Your task to perform on an android device: Add "razer thresher" to the cart on newegg.com, then select checkout. Image 0: 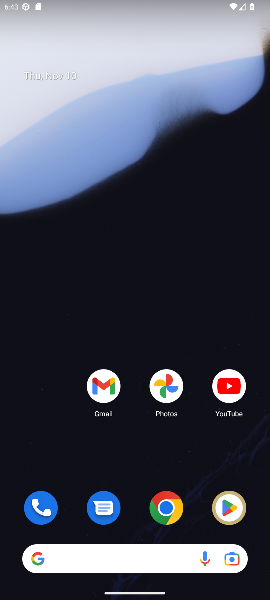
Step 0: click (166, 500)
Your task to perform on an android device: Add "razer thresher" to the cart on newegg.com, then select checkout. Image 1: 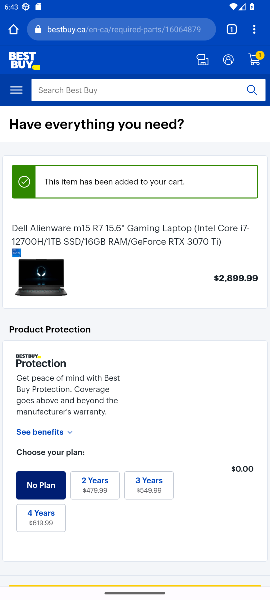
Step 1: click (139, 23)
Your task to perform on an android device: Add "razer thresher" to the cart on newegg.com, then select checkout. Image 2: 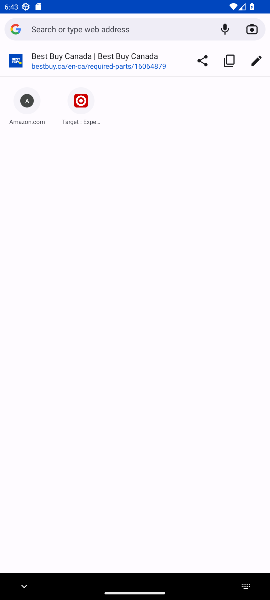
Step 2: click (84, 28)
Your task to perform on an android device: Add "razer thresher" to the cart on newegg.com, then select checkout. Image 3: 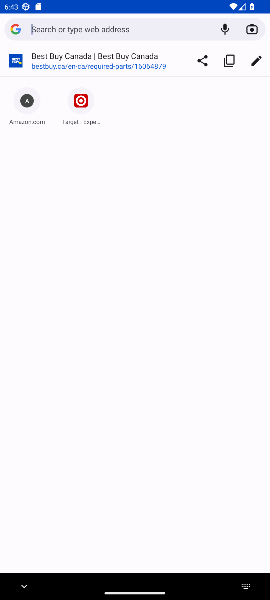
Step 3: type "newegg.com"
Your task to perform on an android device: Add "razer thresher" to the cart on newegg.com, then select checkout. Image 4: 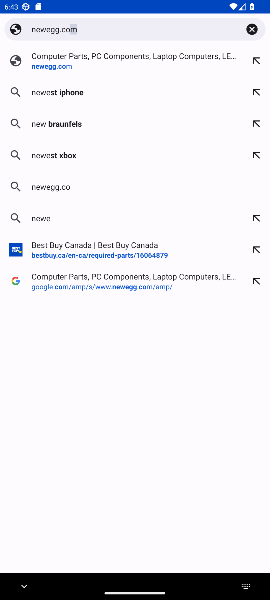
Step 4: press enter
Your task to perform on an android device: Add "razer thresher" to the cart on newegg.com, then select checkout. Image 5: 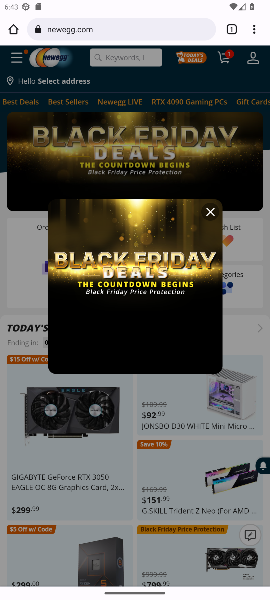
Step 5: click (212, 211)
Your task to perform on an android device: Add "razer thresher" to the cart on newegg.com, then select checkout. Image 6: 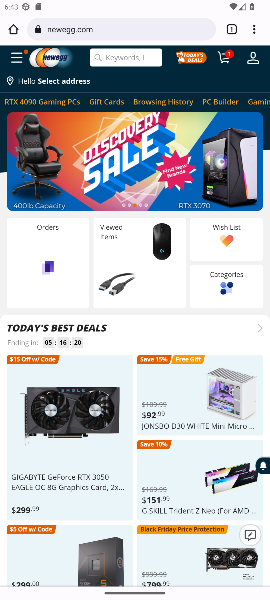
Step 6: click (139, 57)
Your task to perform on an android device: Add "razer thresher" to the cart on newegg.com, then select checkout. Image 7: 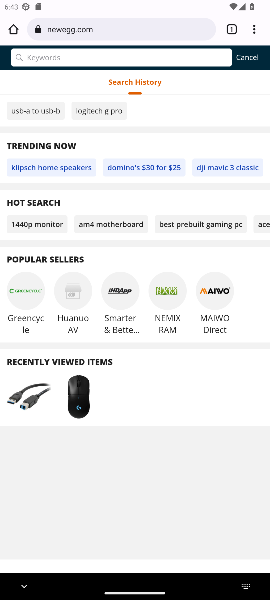
Step 7: type "razer thresher"
Your task to perform on an android device: Add "razer thresher" to the cart on newegg.com, then select checkout. Image 8: 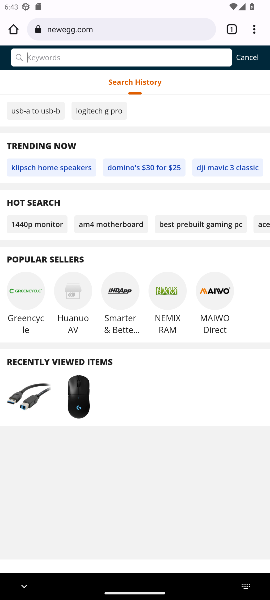
Step 8: press enter
Your task to perform on an android device: Add "razer thresher" to the cart on newegg.com, then select checkout. Image 9: 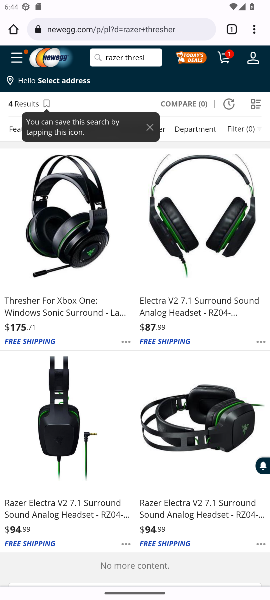
Step 9: task complete